Your task to perform on an android device: install app "Microsoft Authenticator" Image 0: 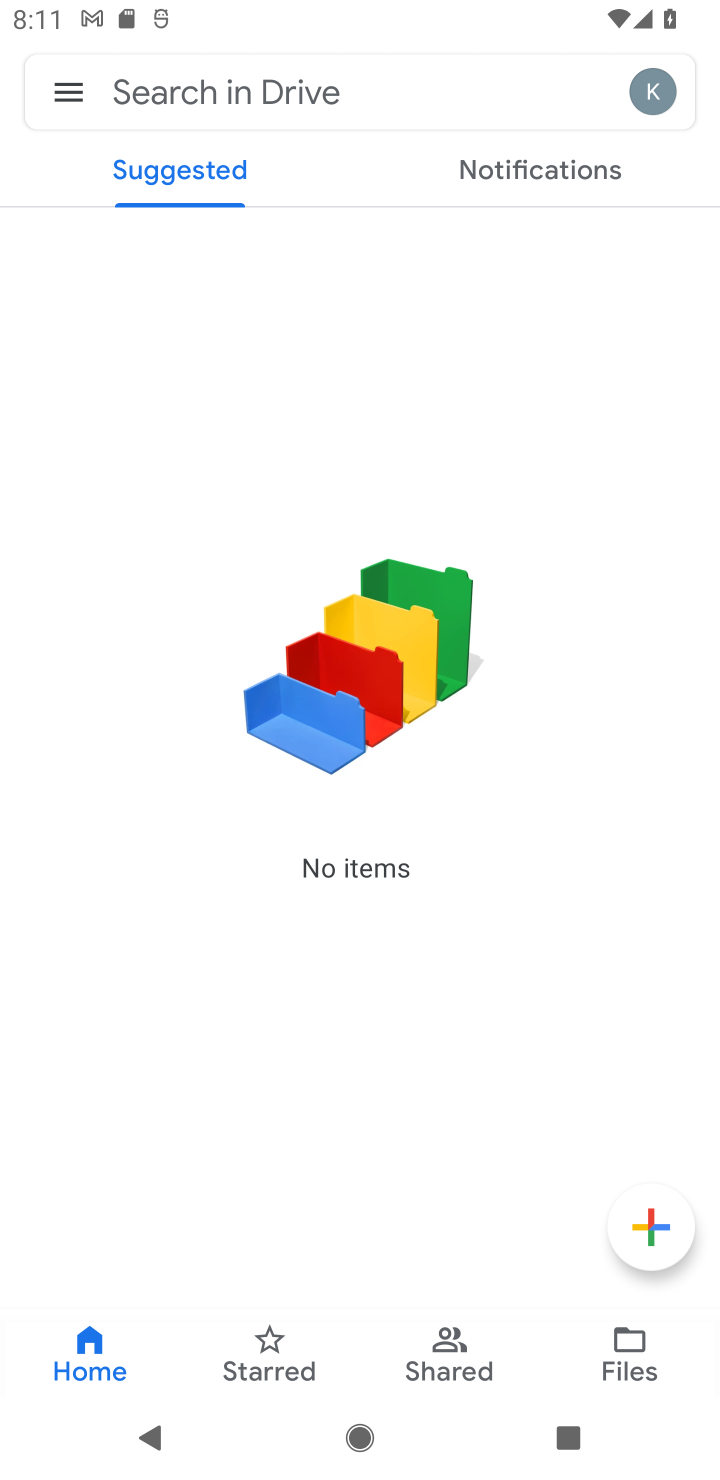
Step 0: press home button
Your task to perform on an android device: install app "Microsoft Authenticator" Image 1: 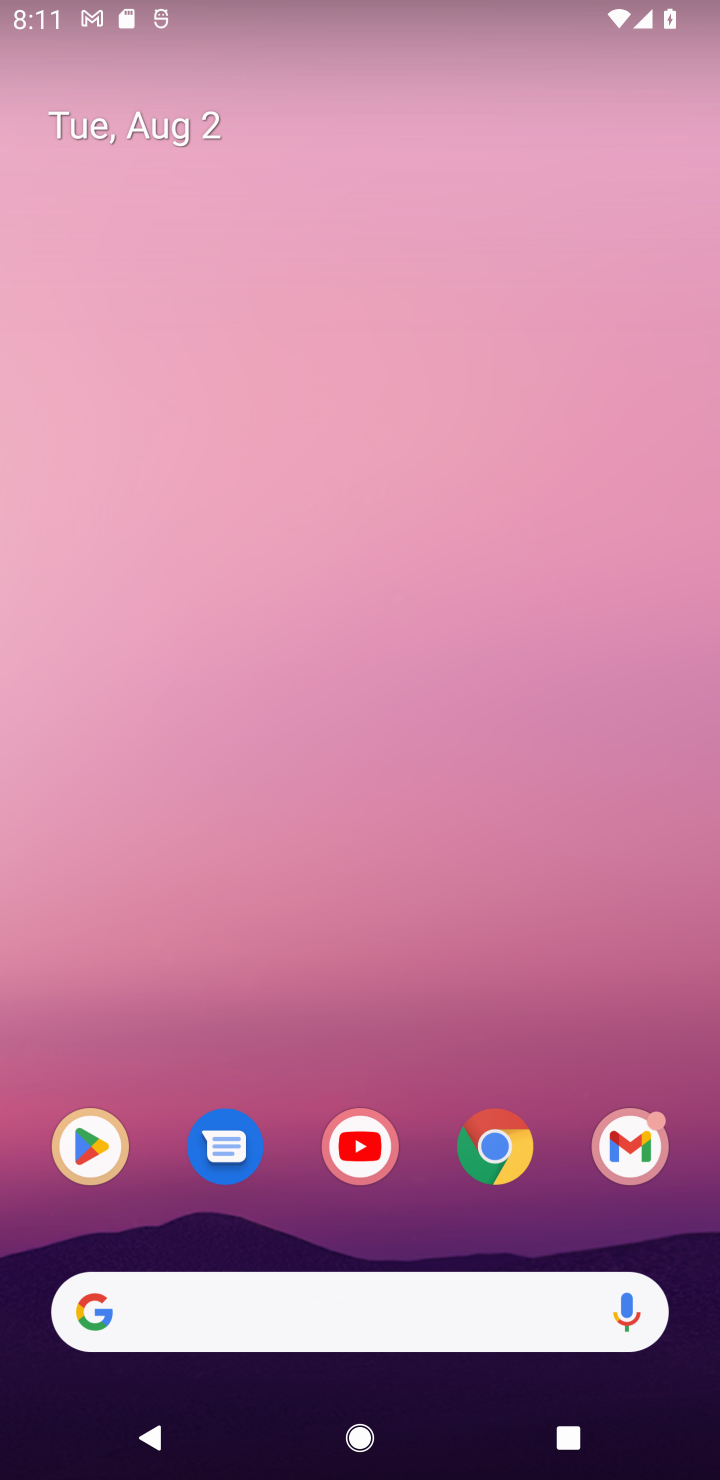
Step 1: drag from (595, 1347) to (113, 4)
Your task to perform on an android device: install app "Microsoft Authenticator" Image 2: 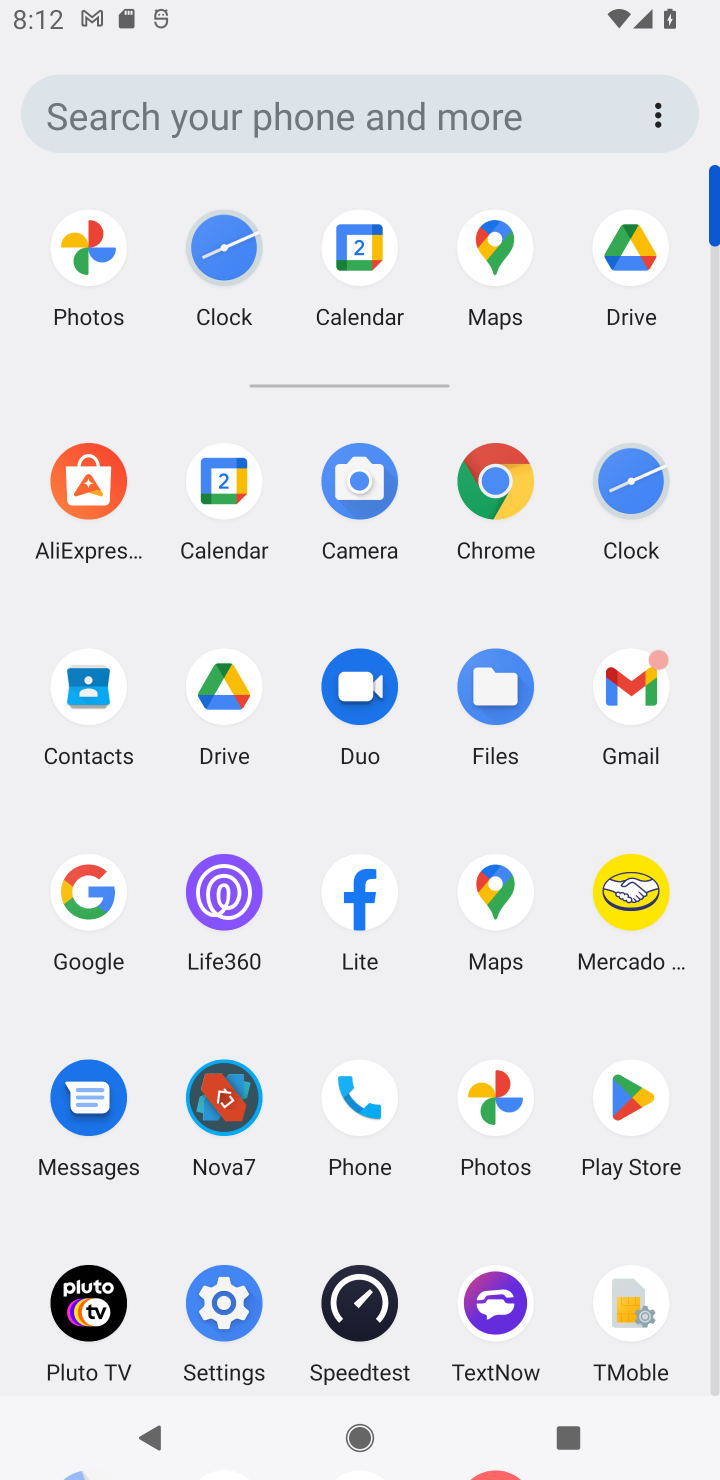
Step 2: click (612, 1086)
Your task to perform on an android device: install app "Microsoft Authenticator" Image 3: 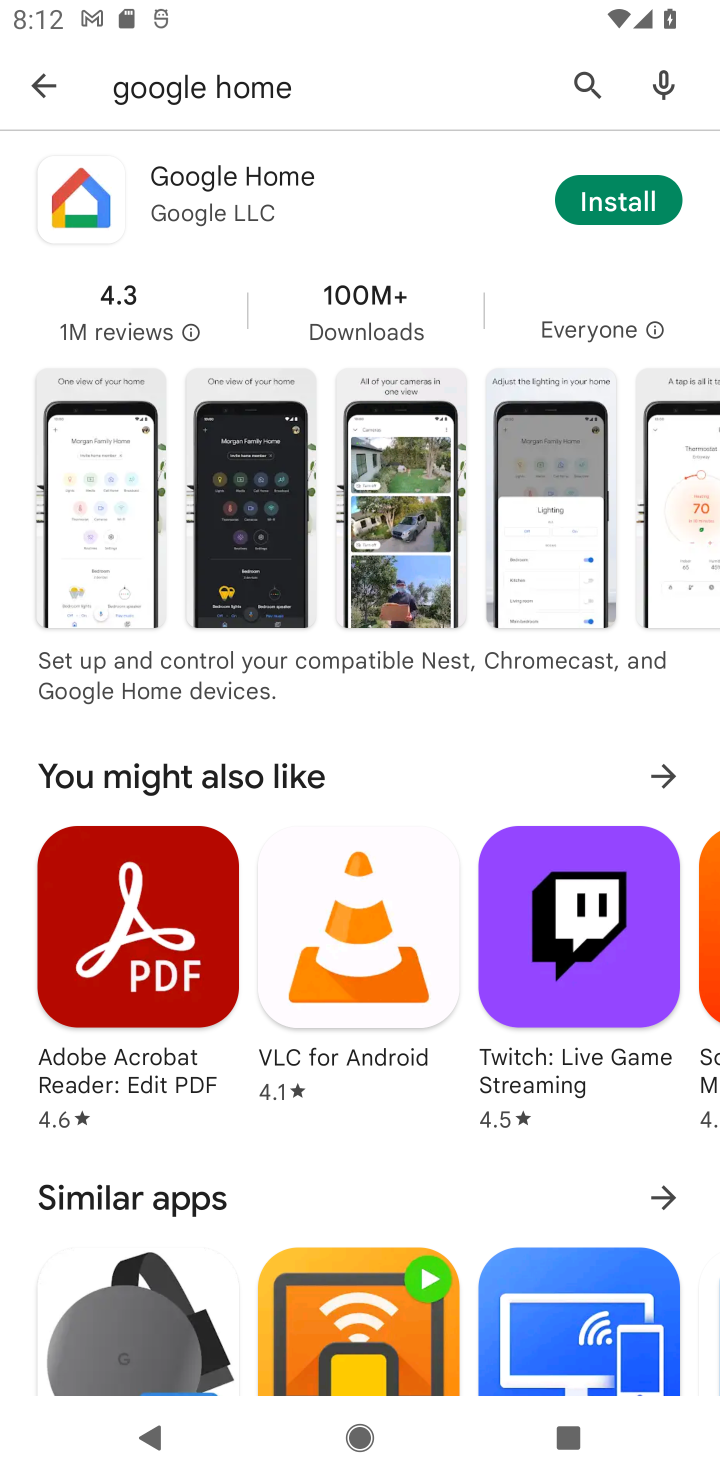
Step 3: press back button
Your task to perform on an android device: install app "Microsoft Authenticator" Image 4: 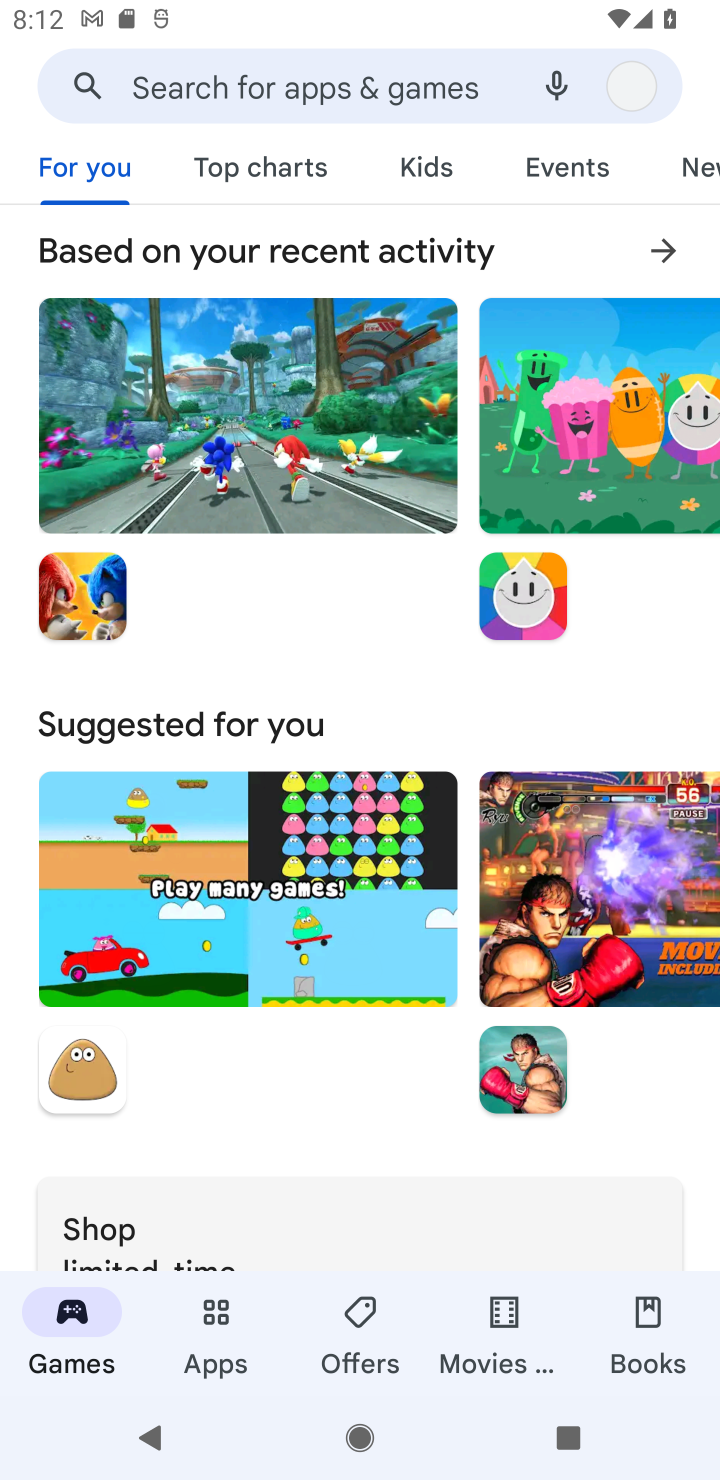
Step 4: click (237, 93)
Your task to perform on an android device: install app "Microsoft Authenticator" Image 5: 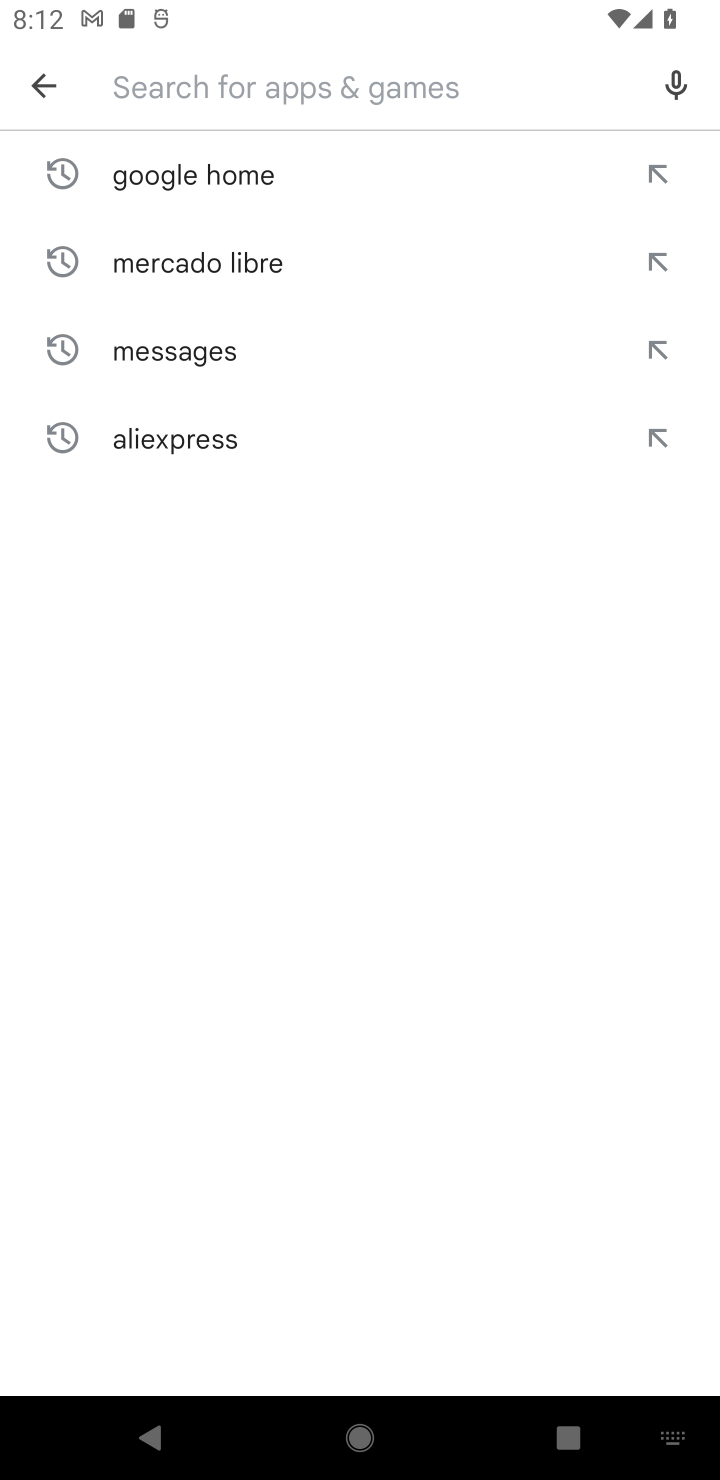
Step 5: type "Microsoft Authenticator"
Your task to perform on an android device: install app "Microsoft Authenticator" Image 6: 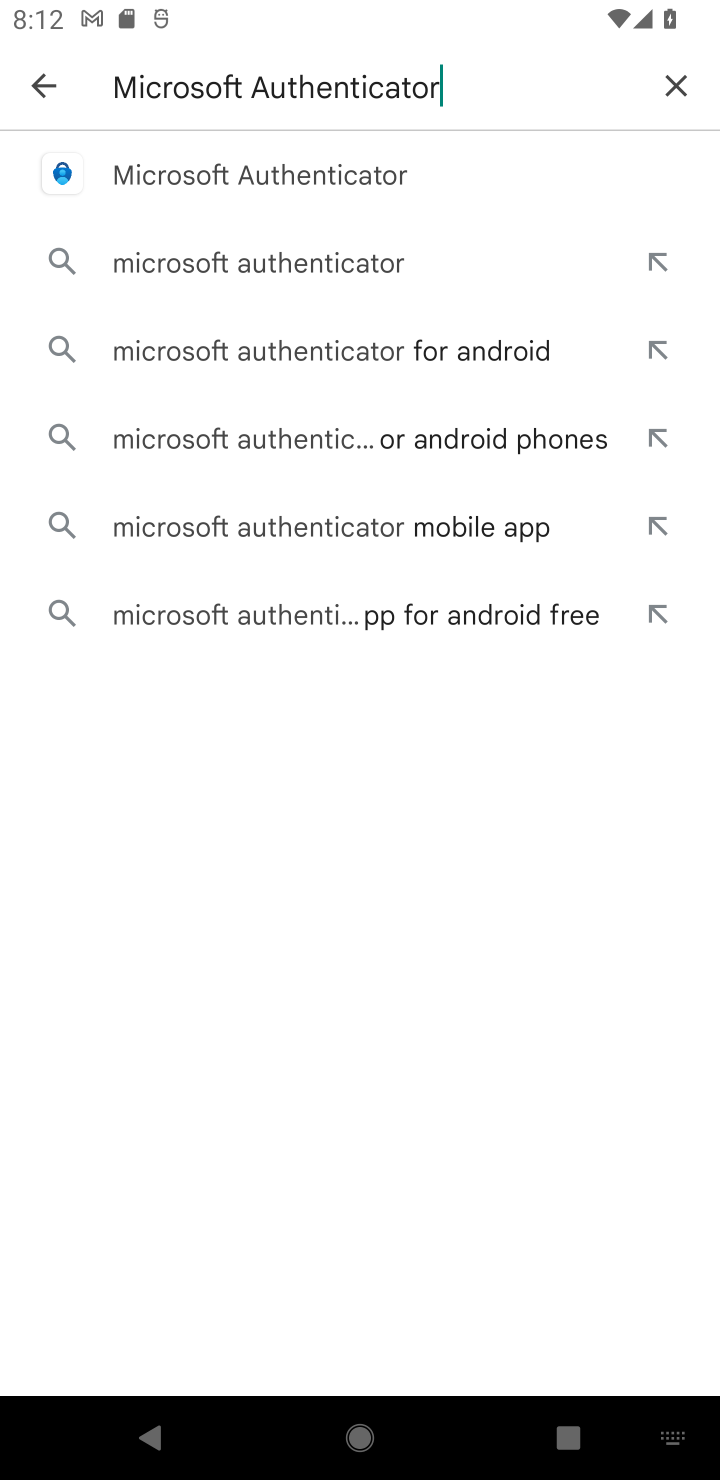
Step 6: click (219, 168)
Your task to perform on an android device: install app "Microsoft Authenticator" Image 7: 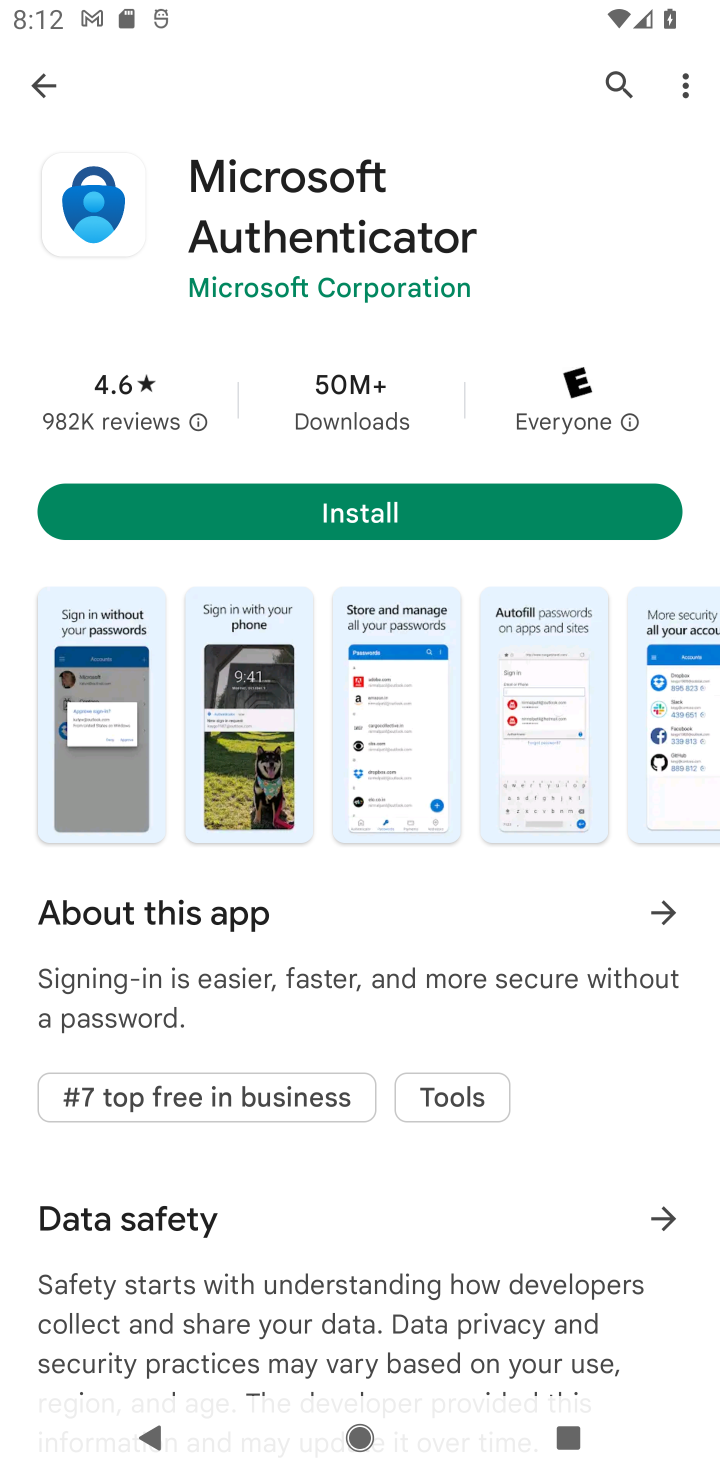
Step 7: click (401, 509)
Your task to perform on an android device: install app "Microsoft Authenticator" Image 8: 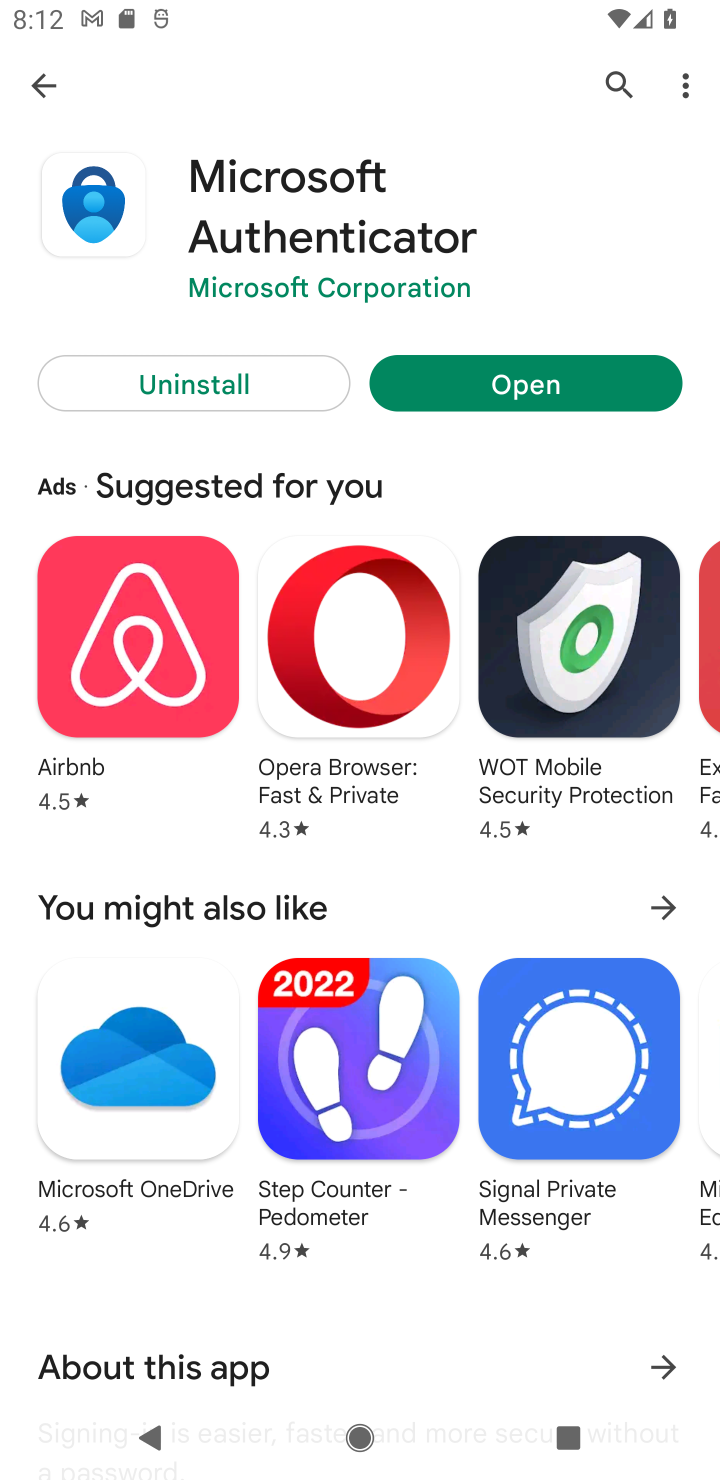
Step 8: task complete